Your task to perform on an android device: Go to Google Image 0: 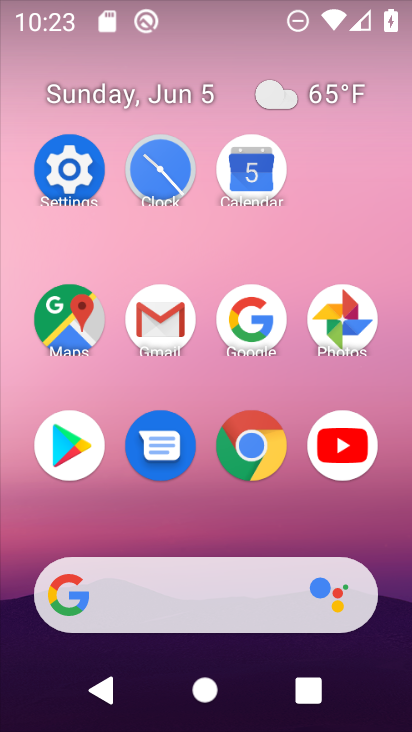
Step 0: click (271, 306)
Your task to perform on an android device: Go to Google Image 1: 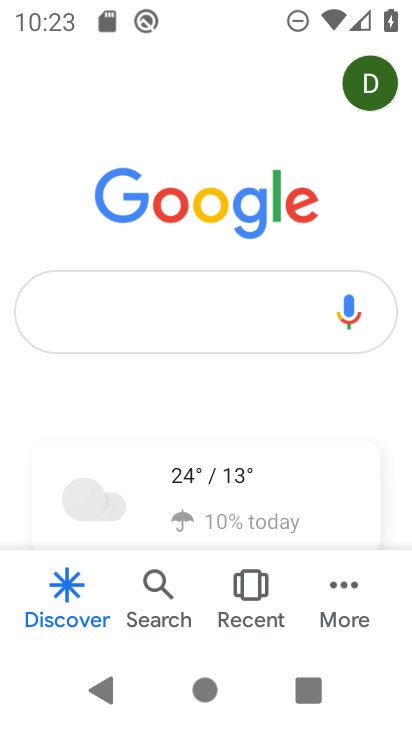
Step 1: task complete